Your task to perform on an android device: open a bookmark in the chrome app Image 0: 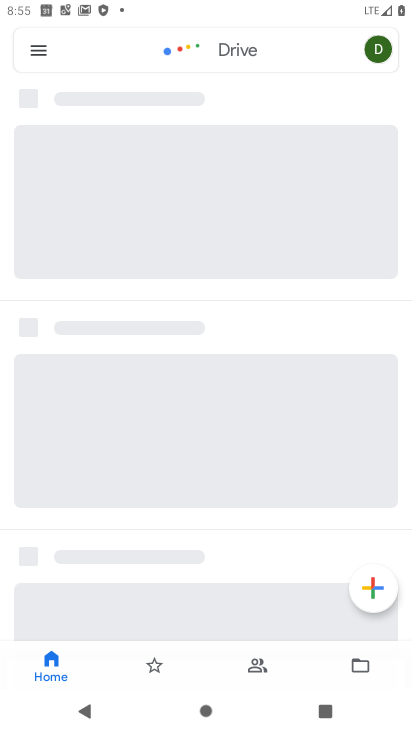
Step 0: press home button
Your task to perform on an android device: open a bookmark in the chrome app Image 1: 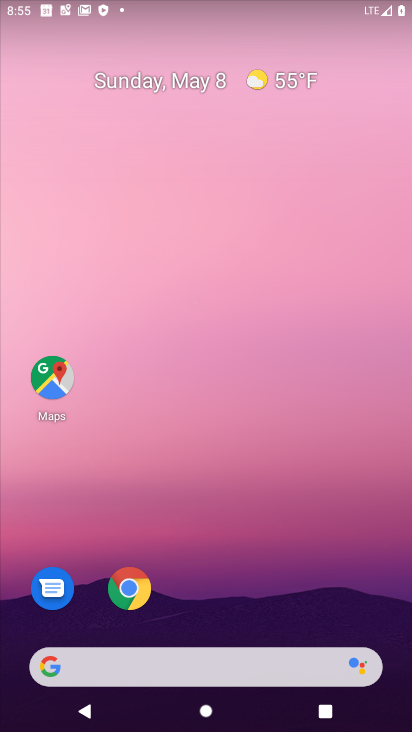
Step 1: drag from (362, 614) to (269, 83)
Your task to perform on an android device: open a bookmark in the chrome app Image 2: 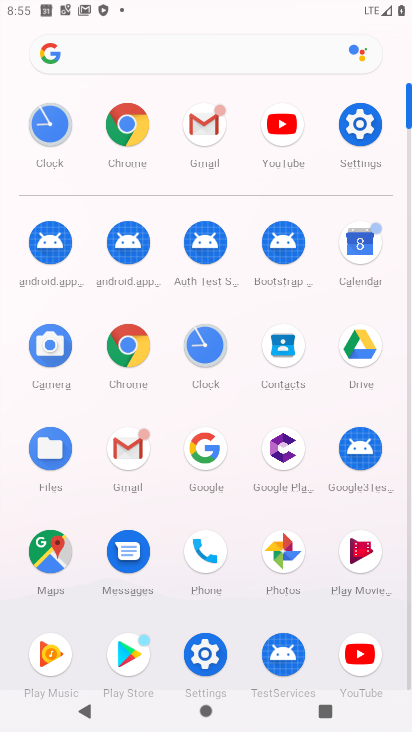
Step 2: click (142, 347)
Your task to perform on an android device: open a bookmark in the chrome app Image 3: 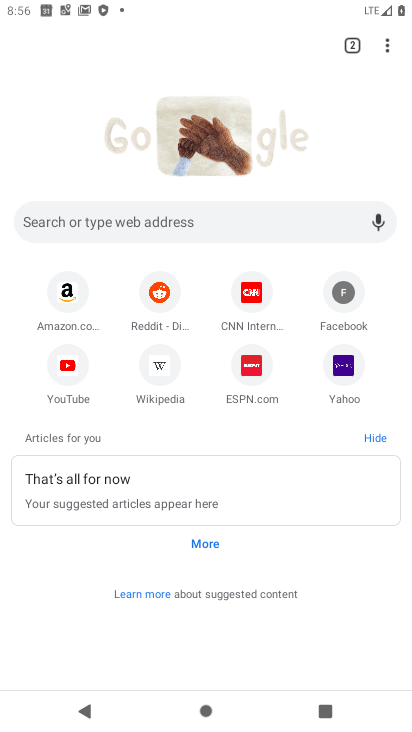
Step 3: click (386, 42)
Your task to perform on an android device: open a bookmark in the chrome app Image 4: 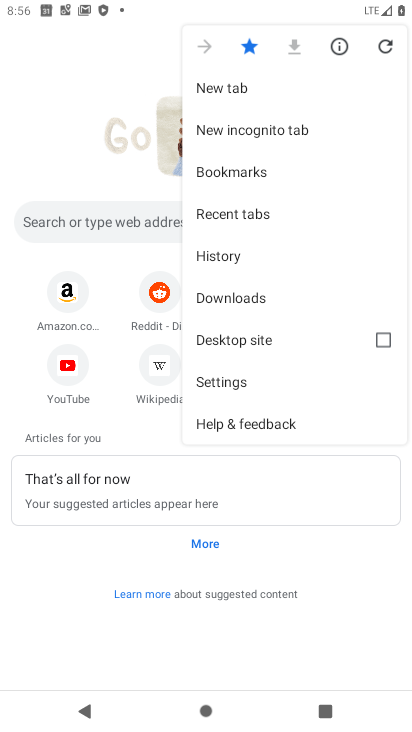
Step 4: click (293, 174)
Your task to perform on an android device: open a bookmark in the chrome app Image 5: 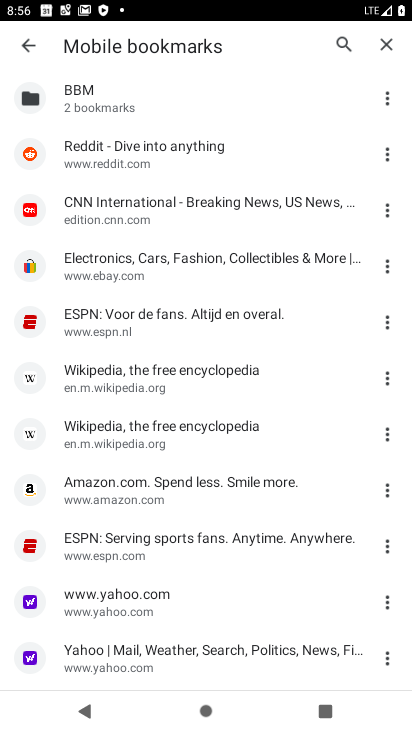
Step 5: task complete